Your task to perform on an android device: turn off javascript in the chrome app Image 0: 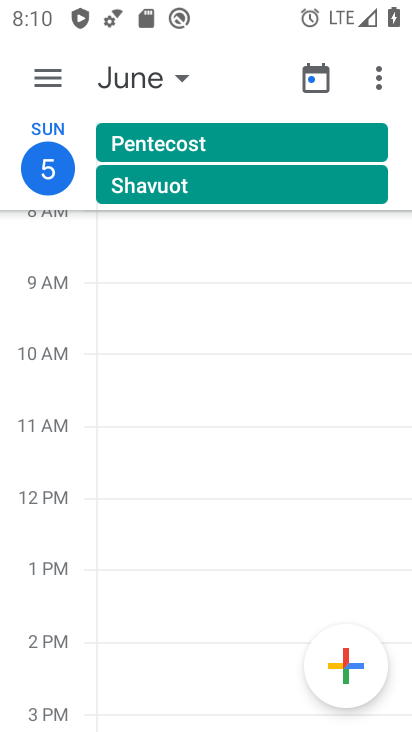
Step 0: press home button
Your task to perform on an android device: turn off javascript in the chrome app Image 1: 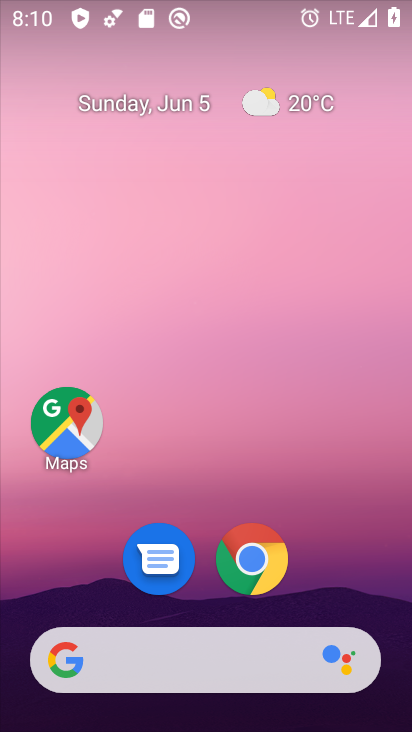
Step 1: click (261, 553)
Your task to perform on an android device: turn off javascript in the chrome app Image 2: 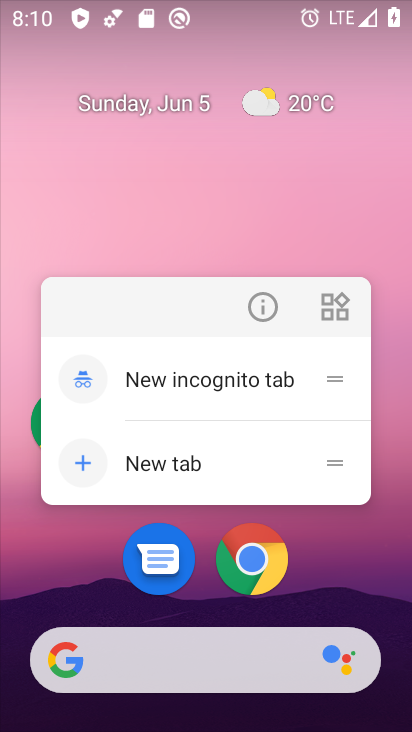
Step 2: click (260, 562)
Your task to perform on an android device: turn off javascript in the chrome app Image 3: 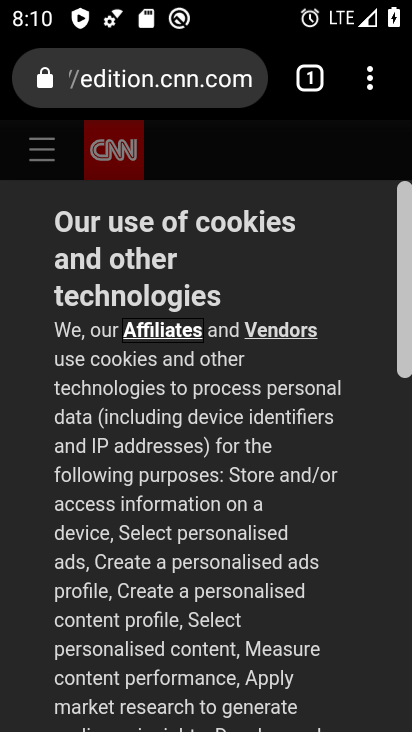
Step 3: drag from (366, 70) to (159, 616)
Your task to perform on an android device: turn off javascript in the chrome app Image 4: 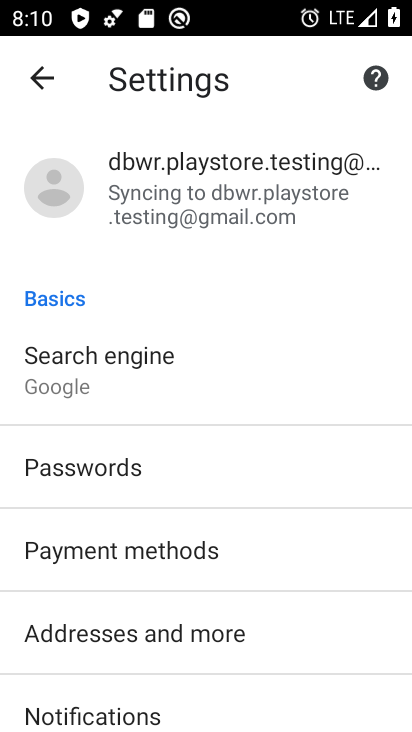
Step 4: drag from (168, 447) to (183, 105)
Your task to perform on an android device: turn off javascript in the chrome app Image 5: 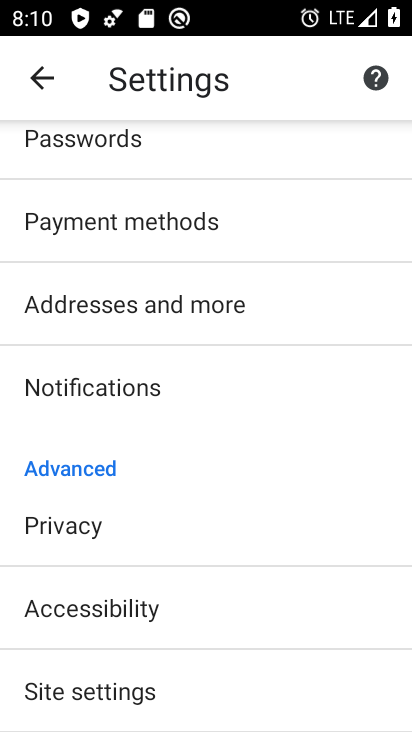
Step 5: click (102, 683)
Your task to perform on an android device: turn off javascript in the chrome app Image 6: 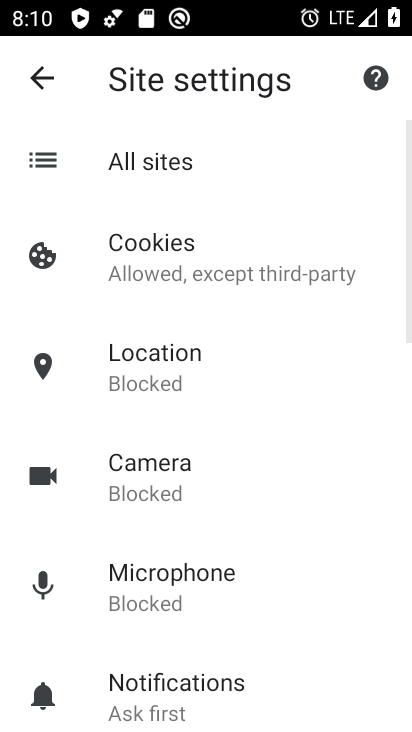
Step 6: drag from (131, 598) to (187, 251)
Your task to perform on an android device: turn off javascript in the chrome app Image 7: 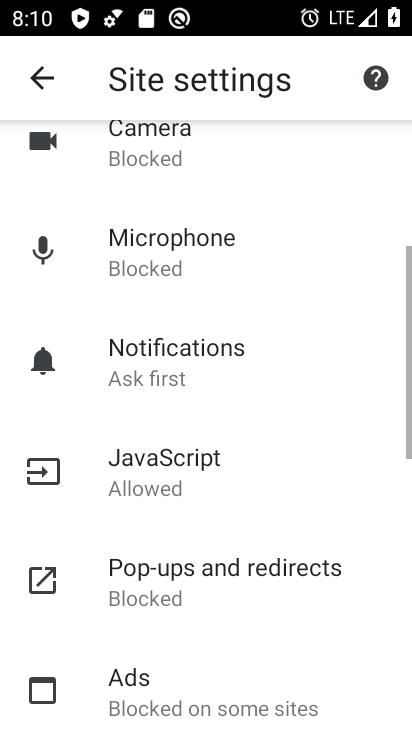
Step 7: click (201, 206)
Your task to perform on an android device: turn off javascript in the chrome app Image 8: 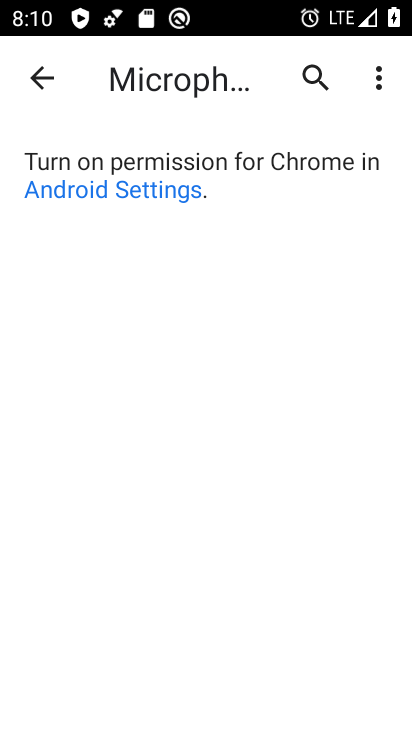
Step 8: click (31, 90)
Your task to perform on an android device: turn off javascript in the chrome app Image 9: 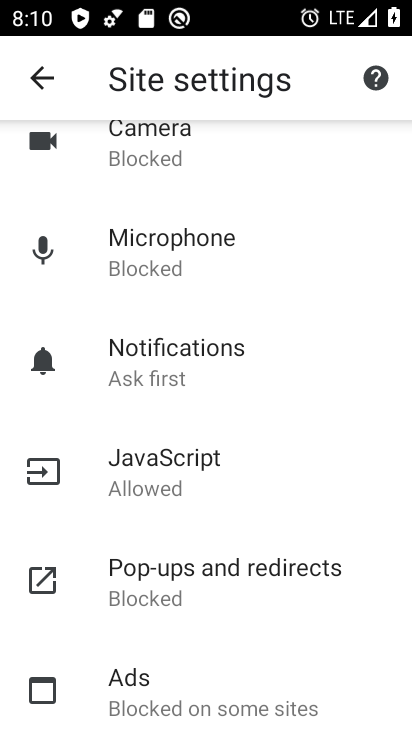
Step 9: click (155, 466)
Your task to perform on an android device: turn off javascript in the chrome app Image 10: 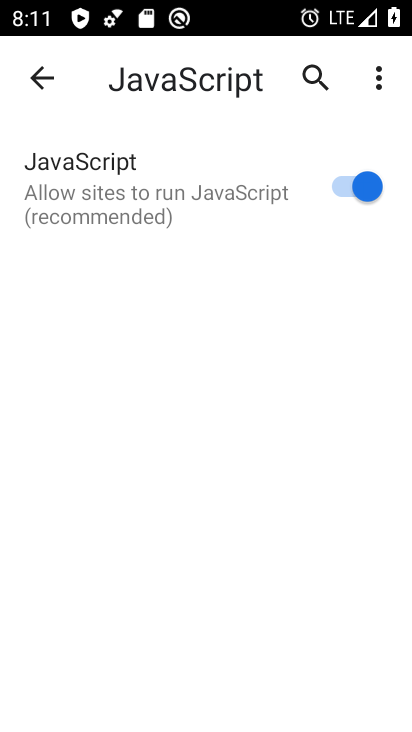
Step 10: click (364, 187)
Your task to perform on an android device: turn off javascript in the chrome app Image 11: 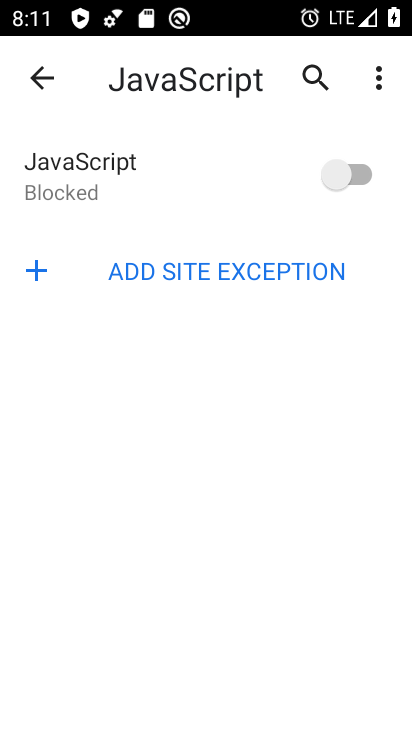
Step 11: task complete